Your task to perform on an android device: turn off javascript in the chrome app Image 0: 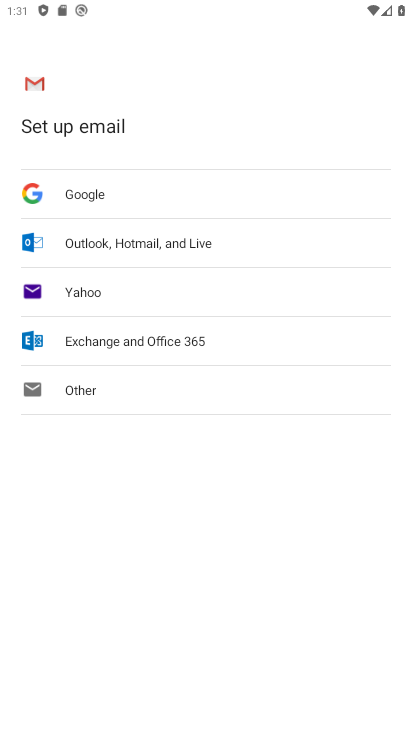
Step 0: press home button
Your task to perform on an android device: turn off javascript in the chrome app Image 1: 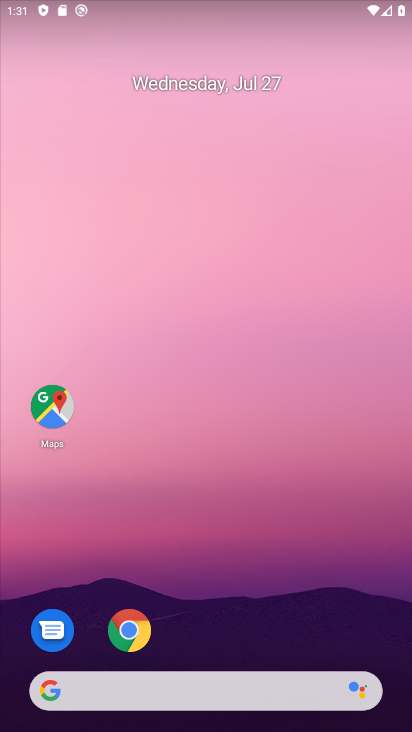
Step 1: click (126, 629)
Your task to perform on an android device: turn off javascript in the chrome app Image 2: 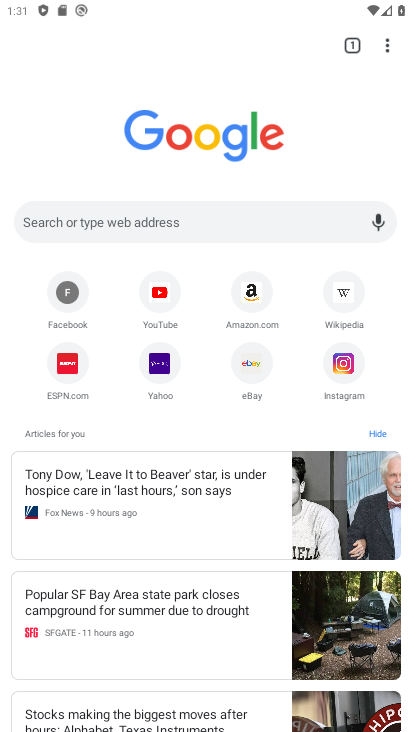
Step 2: click (387, 53)
Your task to perform on an android device: turn off javascript in the chrome app Image 3: 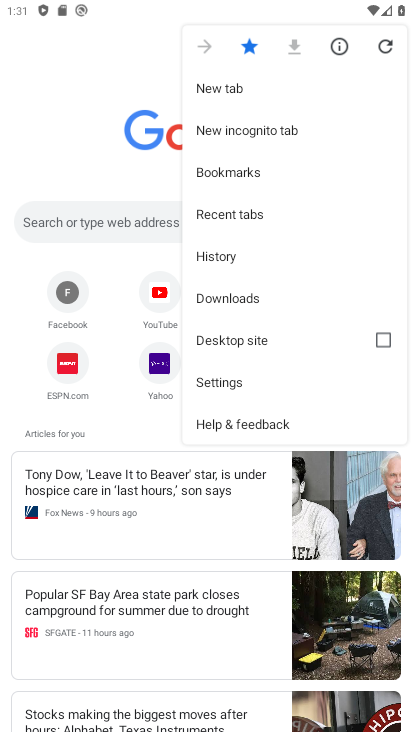
Step 3: click (227, 381)
Your task to perform on an android device: turn off javascript in the chrome app Image 4: 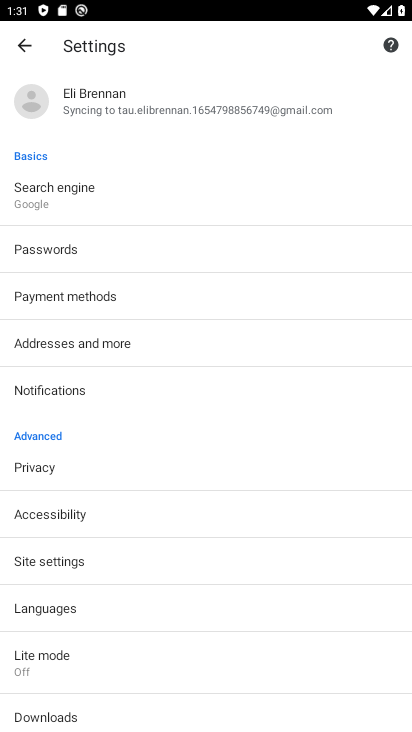
Step 4: click (23, 561)
Your task to perform on an android device: turn off javascript in the chrome app Image 5: 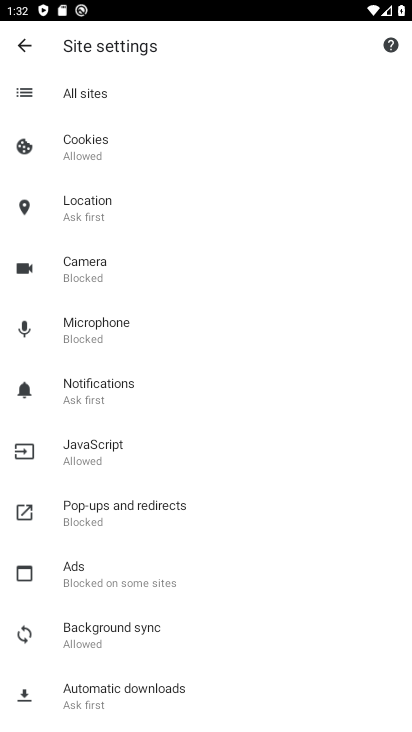
Step 5: click (90, 458)
Your task to perform on an android device: turn off javascript in the chrome app Image 6: 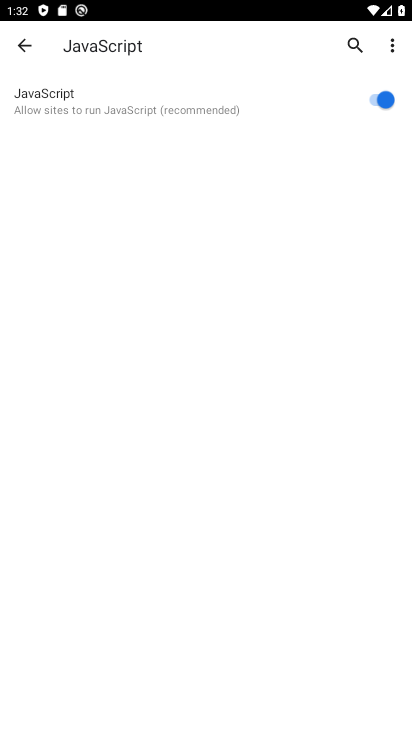
Step 6: click (371, 98)
Your task to perform on an android device: turn off javascript in the chrome app Image 7: 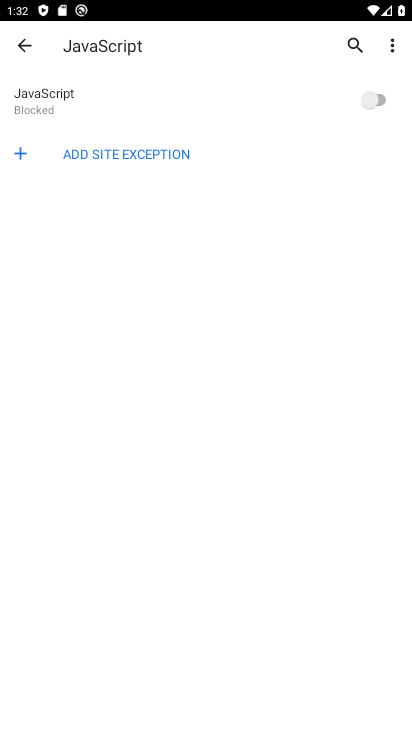
Step 7: task complete